Your task to perform on an android device: set the timer Image 0: 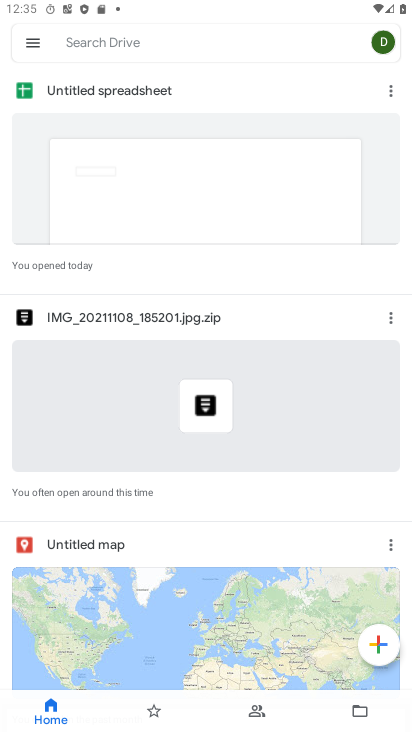
Step 0: press home button
Your task to perform on an android device: set the timer Image 1: 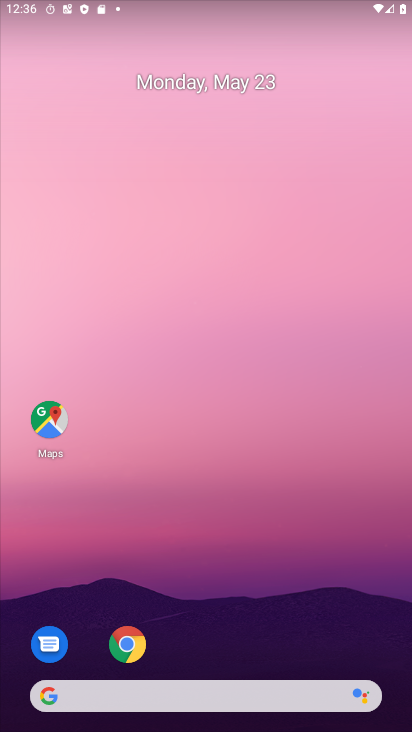
Step 1: drag from (252, 646) to (326, 166)
Your task to perform on an android device: set the timer Image 2: 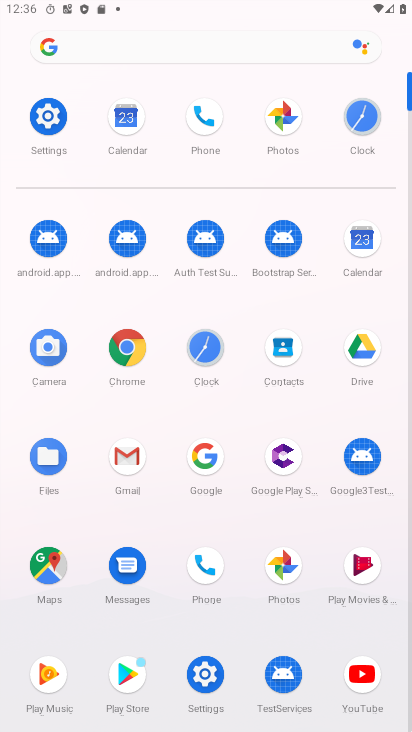
Step 2: click (366, 114)
Your task to perform on an android device: set the timer Image 3: 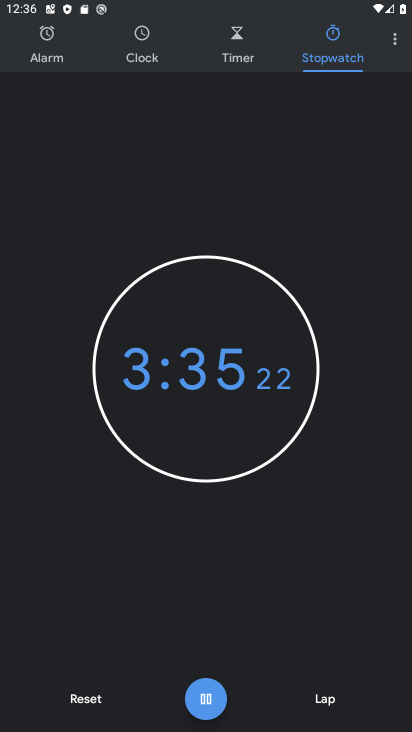
Step 3: click (234, 50)
Your task to perform on an android device: set the timer Image 4: 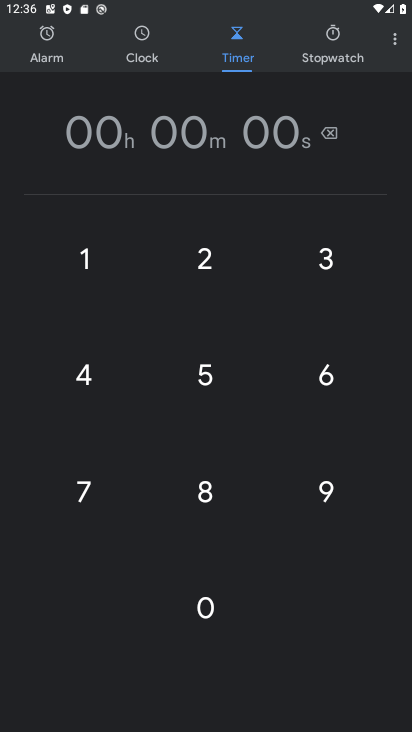
Step 4: click (89, 254)
Your task to perform on an android device: set the timer Image 5: 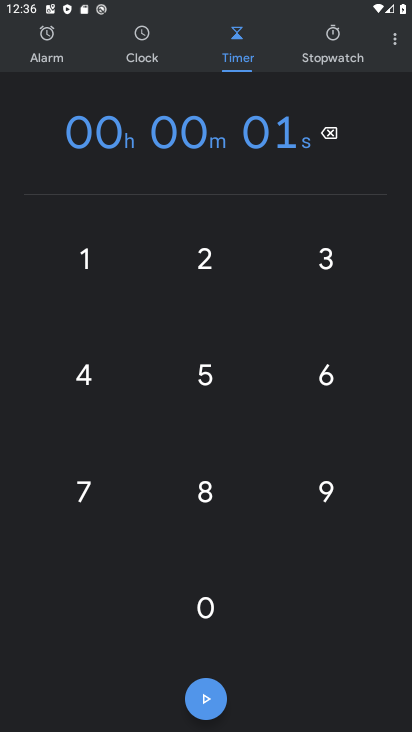
Step 5: click (222, 273)
Your task to perform on an android device: set the timer Image 6: 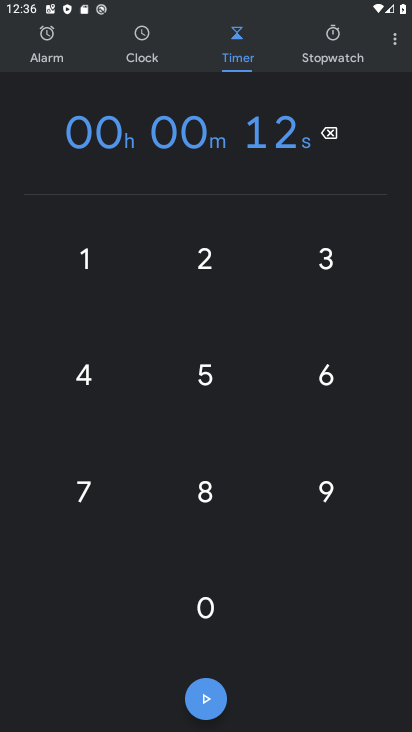
Step 6: click (206, 378)
Your task to perform on an android device: set the timer Image 7: 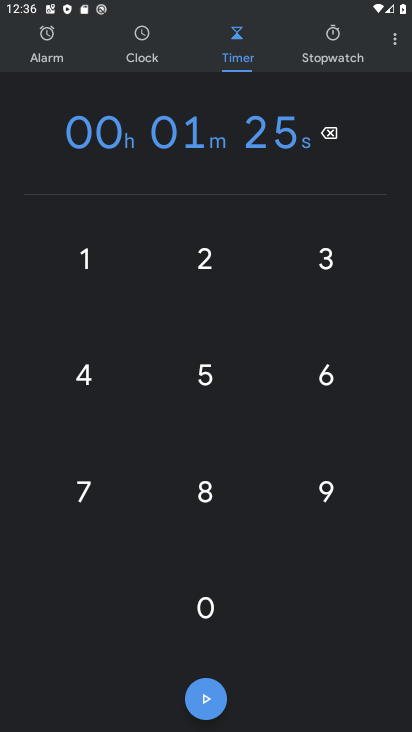
Step 7: click (326, 382)
Your task to perform on an android device: set the timer Image 8: 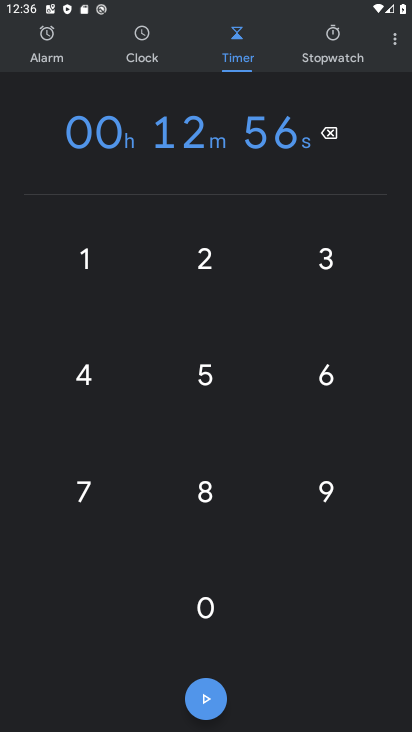
Step 8: click (200, 493)
Your task to perform on an android device: set the timer Image 9: 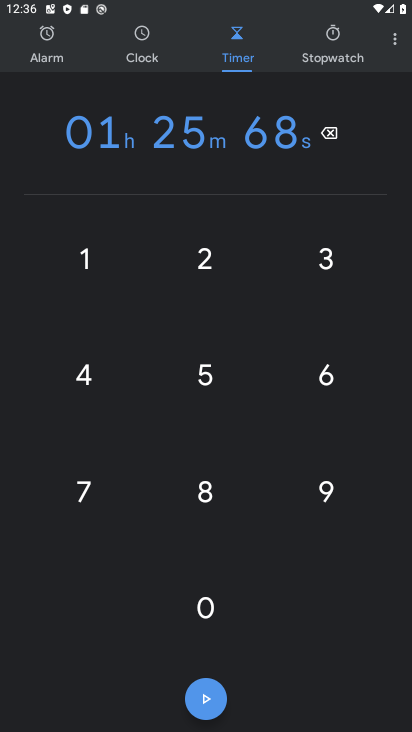
Step 9: click (205, 698)
Your task to perform on an android device: set the timer Image 10: 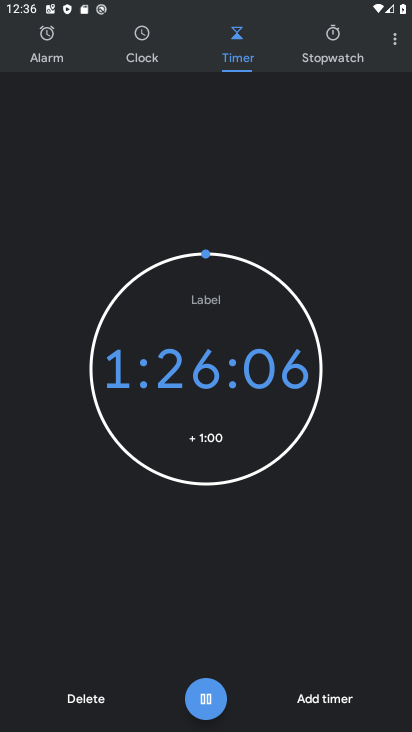
Step 10: task complete